Your task to perform on an android device: Open Google Image 0: 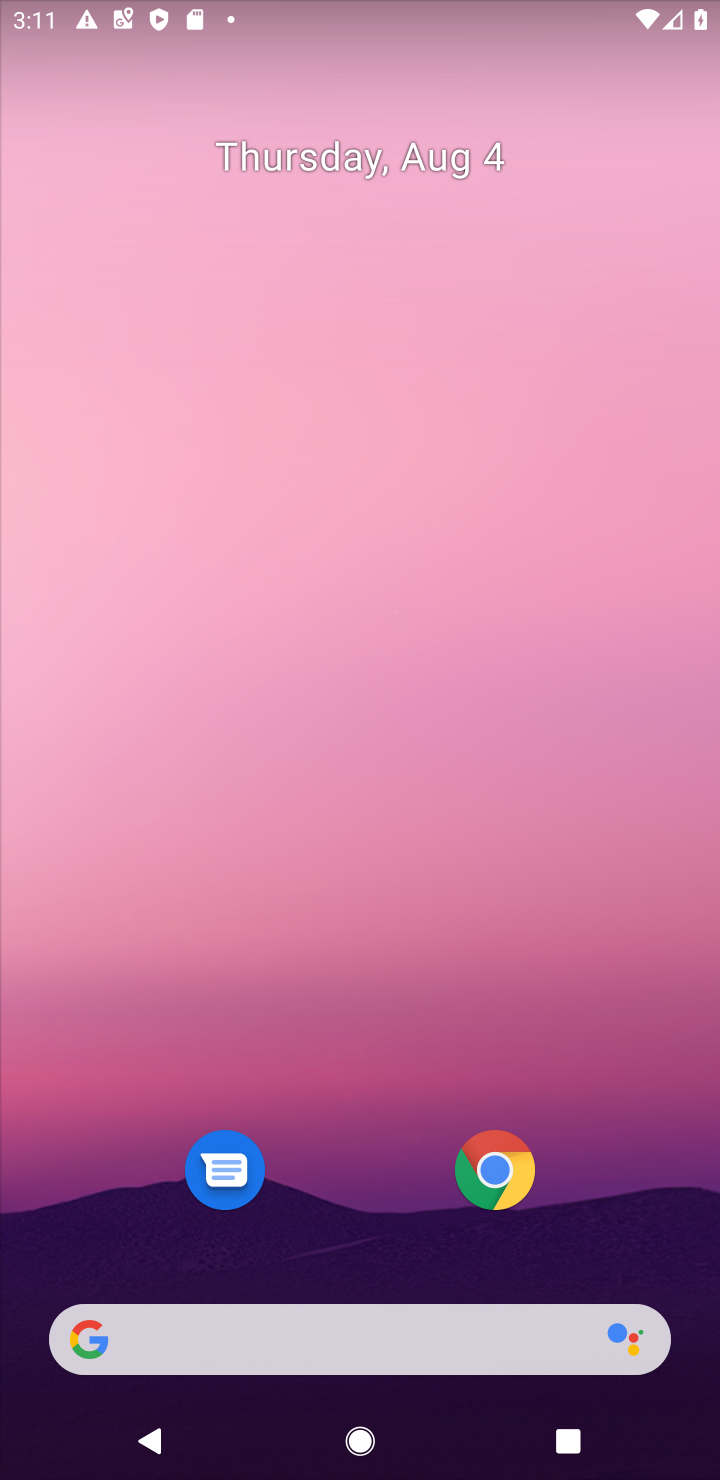
Step 0: click (494, 1171)
Your task to perform on an android device: Open Google Image 1: 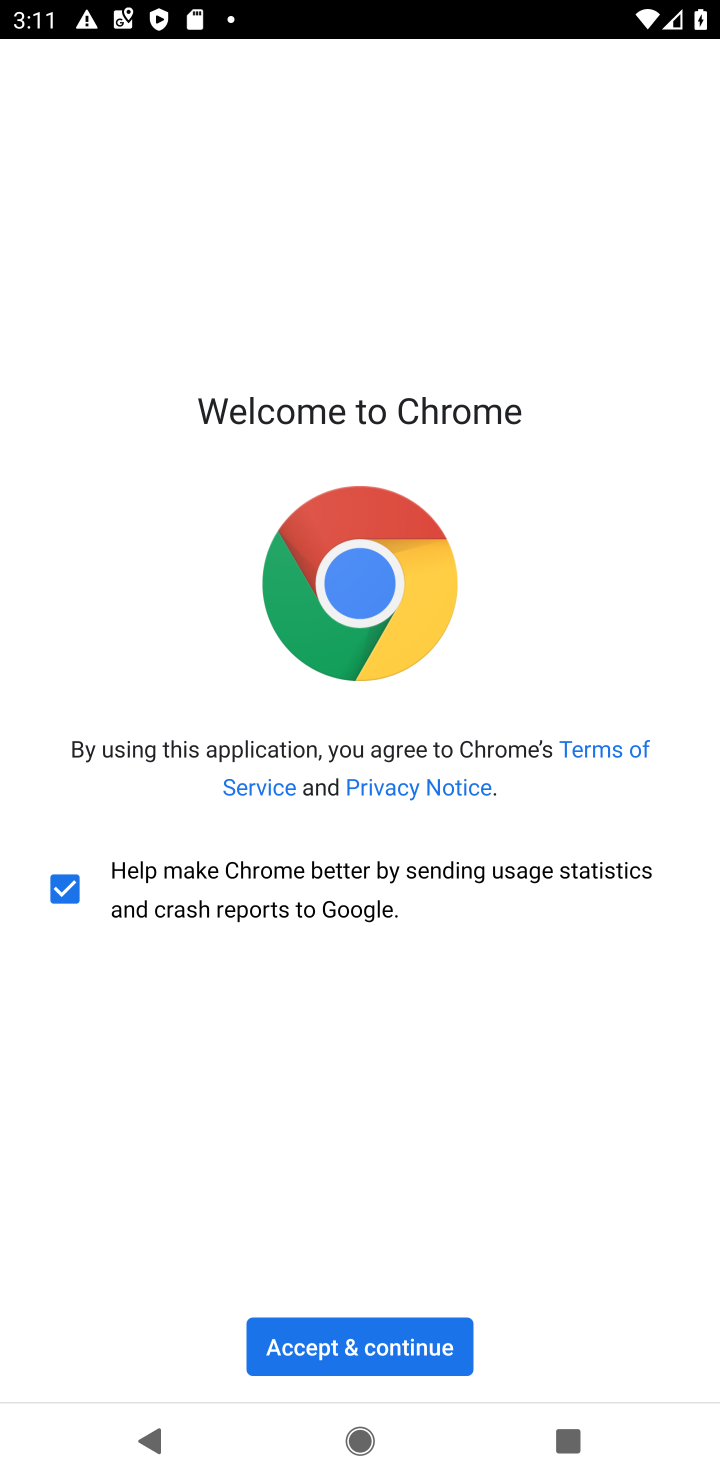
Step 1: click (338, 1349)
Your task to perform on an android device: Open Google Image 2: 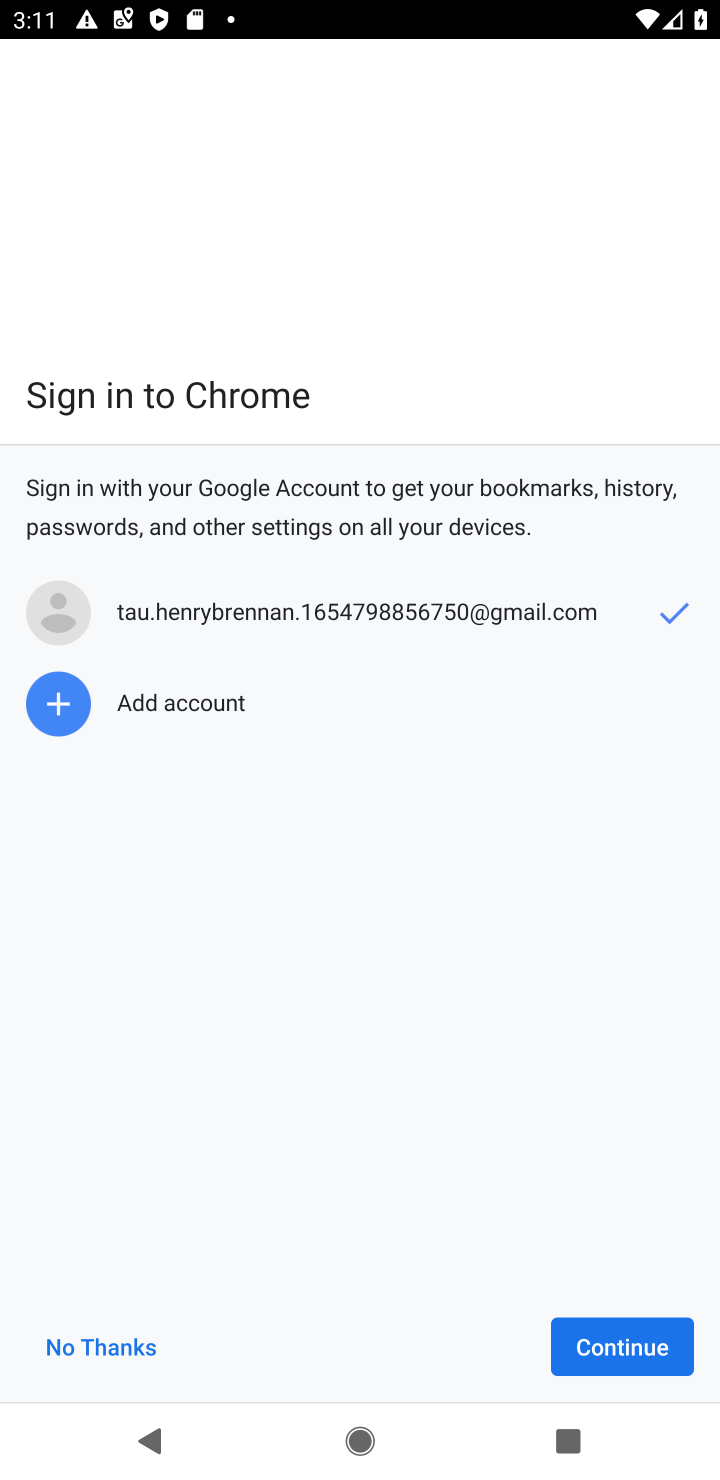
Step 2: click (628, 1350)
Your task to perform on an android device: Open Google Image 3: 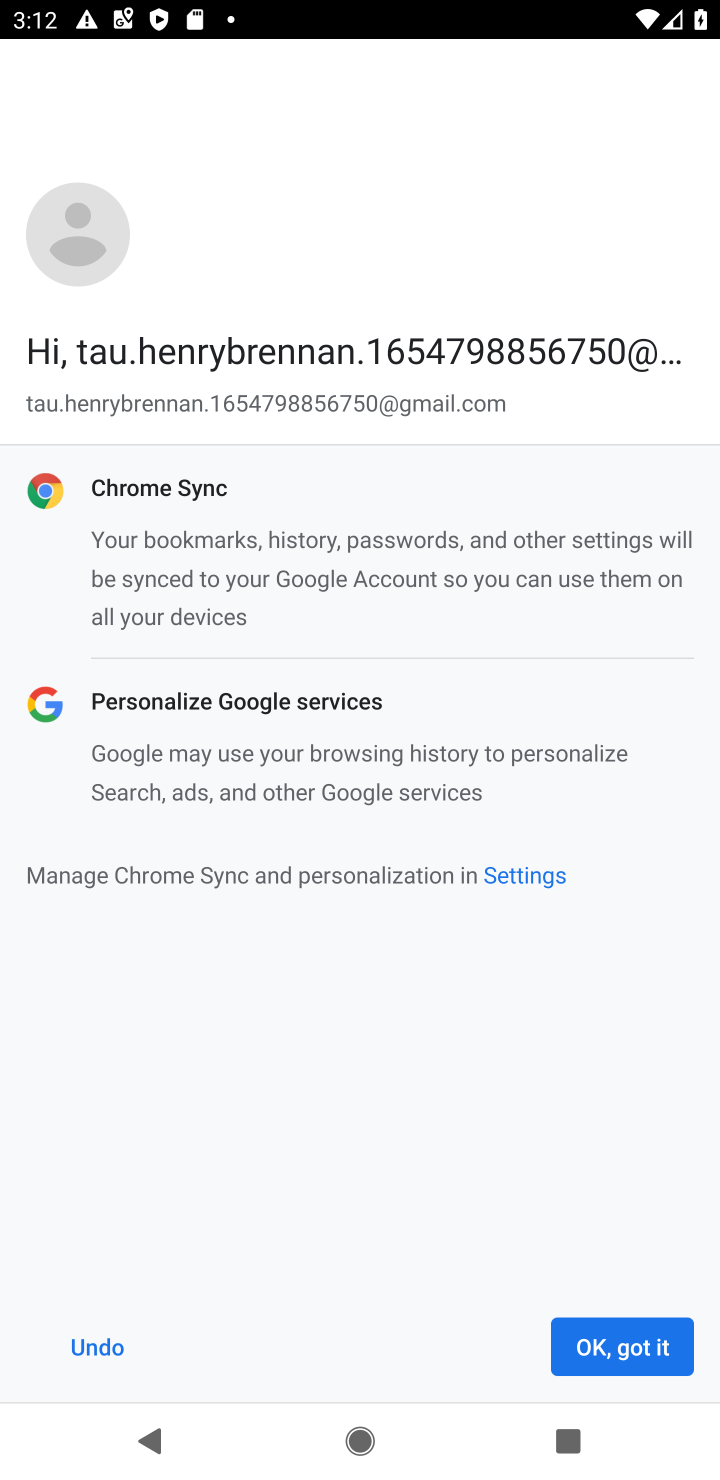
Step 3: click (628, 1350)
Your task to perform on an android device: Open Google Image 4: 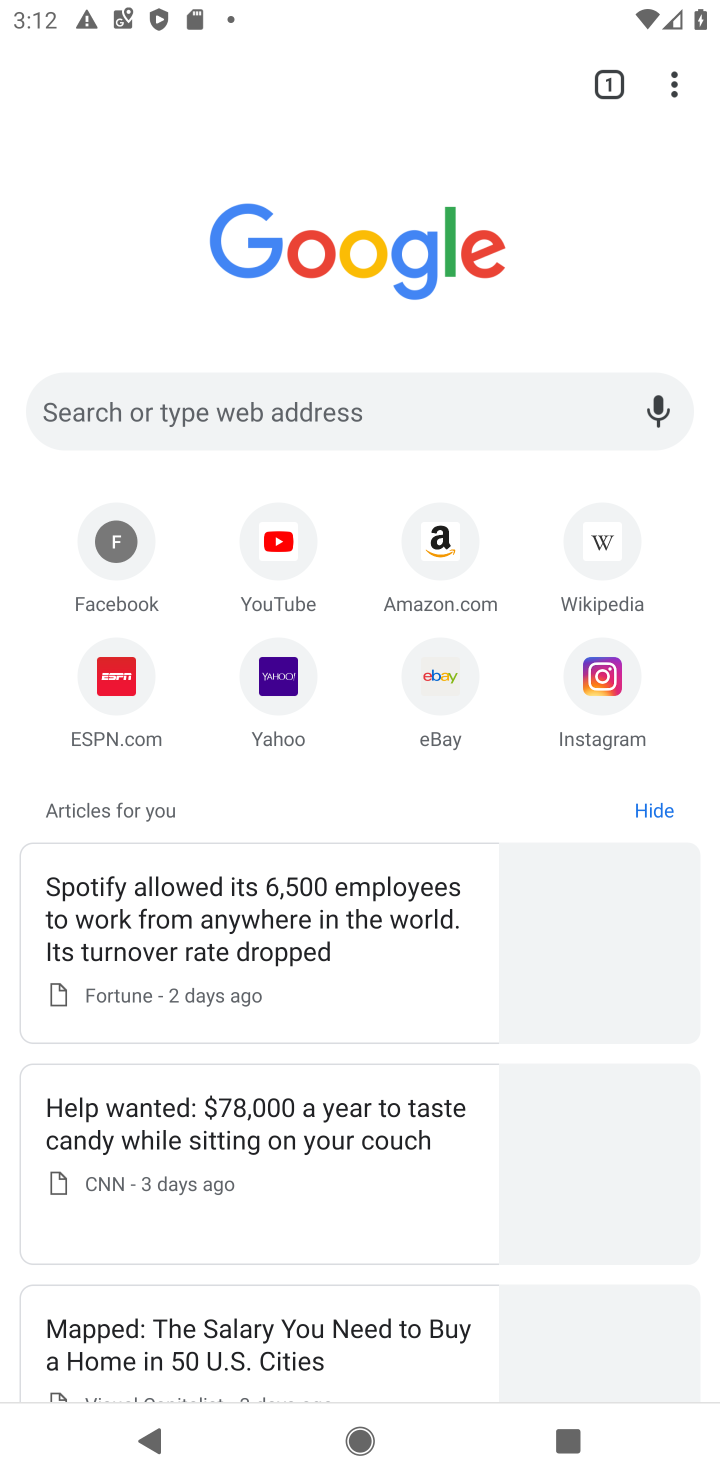
Step 4: task complete